Your task to perform on an android device: open chrome privacy settings Image 0: 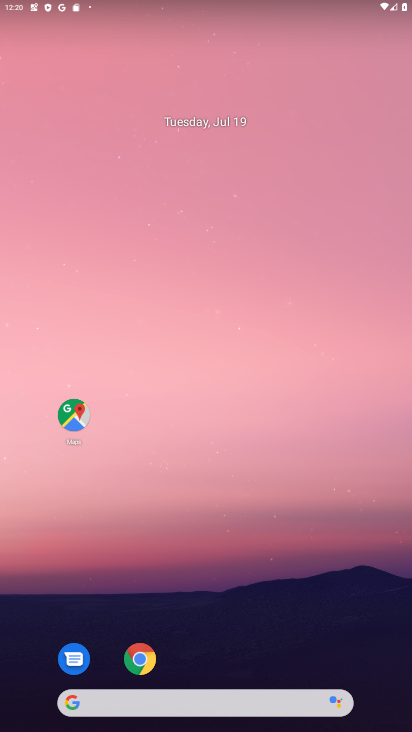
Step 0: click (140, 657)
Your task to perform on an android device: open chrome privacy settings Image 1: 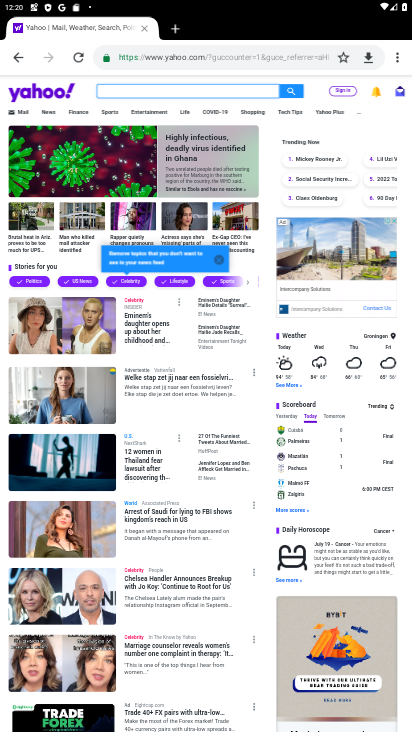
Step 1: click (395, 57)
Your task to perform on an android device: open chrome privacy settings Image 2: 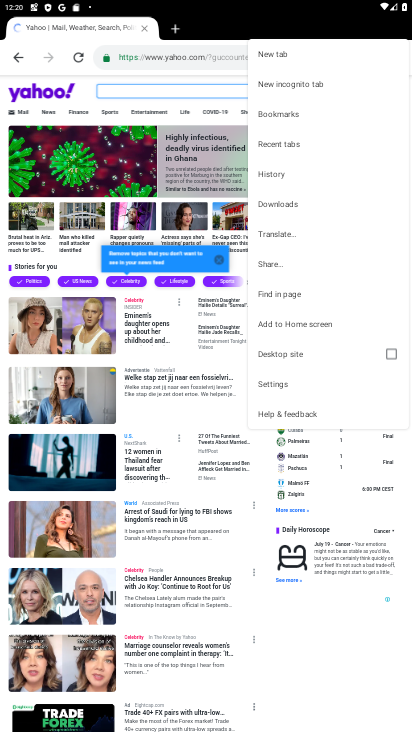
Step 2: click (275, 385)
Your task to perform on an android device: open chrome privacy settings Image 3: 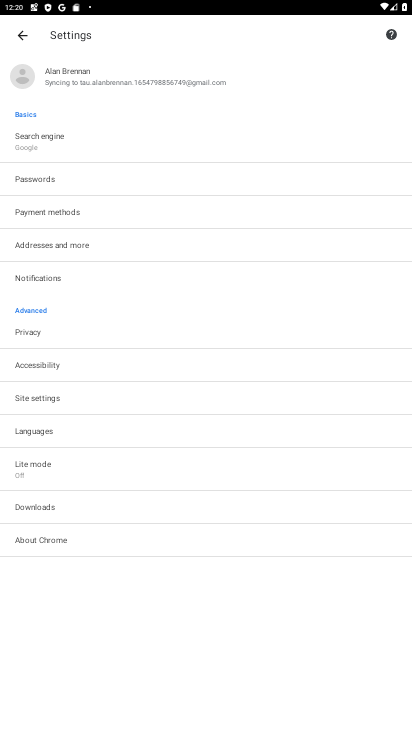
Step 3: click (31, 332)
Your task to perform on an android device: open chrome privacy settings Image 4: 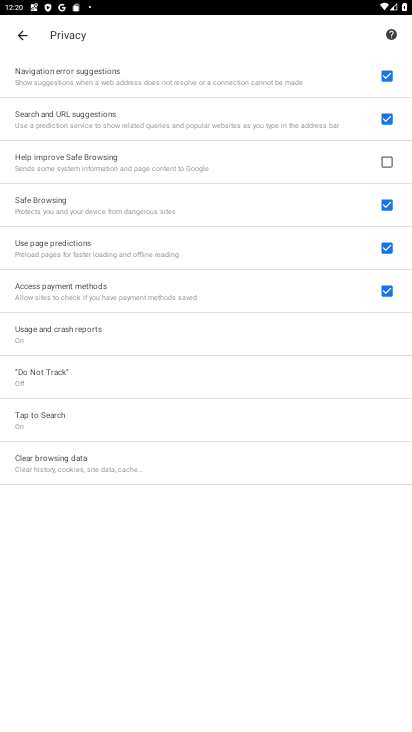
Step 4: task complete